Your task to perform on an android device: Show the shopping cart on amazon.com. Add "duracell triple a" to the cart on amazon.com, then select checkout. Image 0: 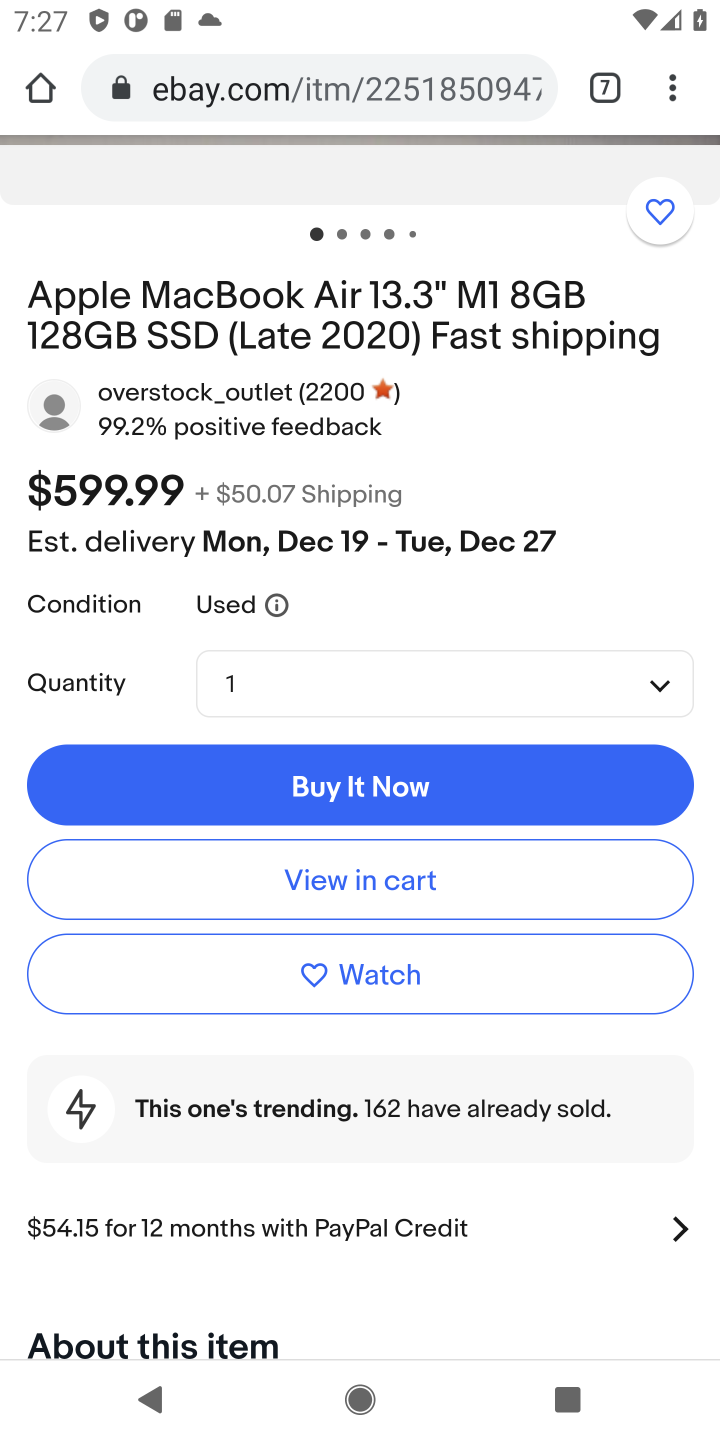
Step 0: press home button
Your task to perform on an android device: Show the shopping cart on amazon.com. Add "duracell triple a" to the cart on amazon.com, then select checkout. Image 1: 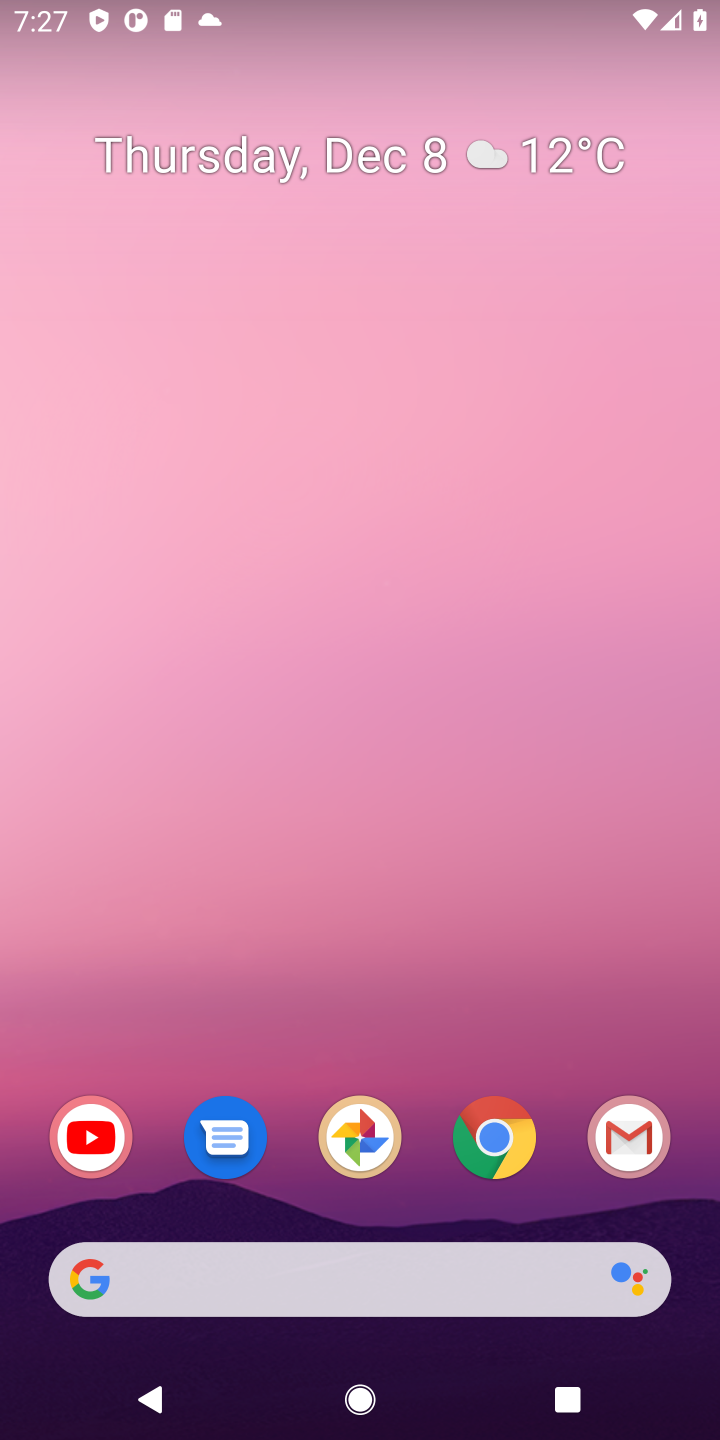
Step 1: click (487, 1129)
Your task to perform on an android device: Show the shopping cart on amazon.com. Add "duracell triple a" to the cart on amazon.com, then select checkout. Image 2: 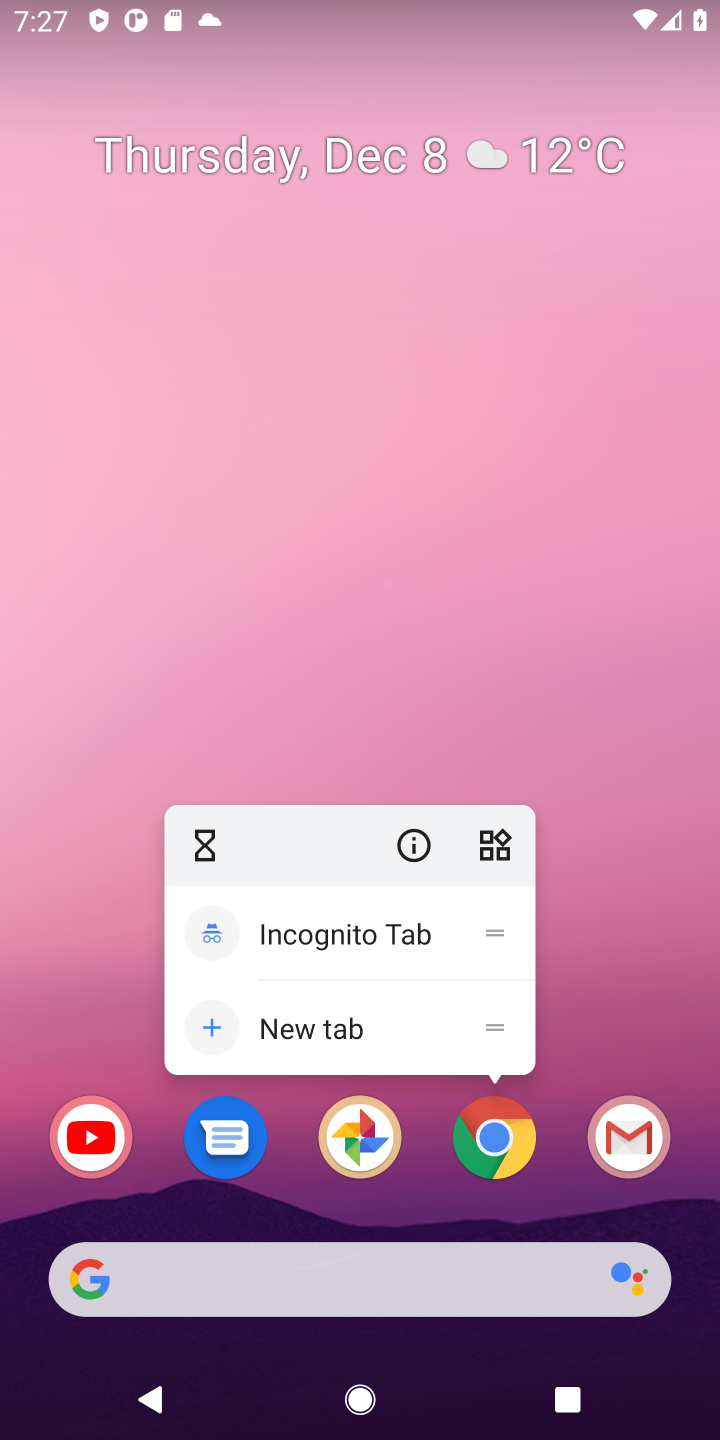
Step 2: click (475, 1124)
Your task to perform on an android device: Show the shopping cart on amazon.com. Add "duracell triple a" to the cart on amazon.com, then select checkout. Image 3: 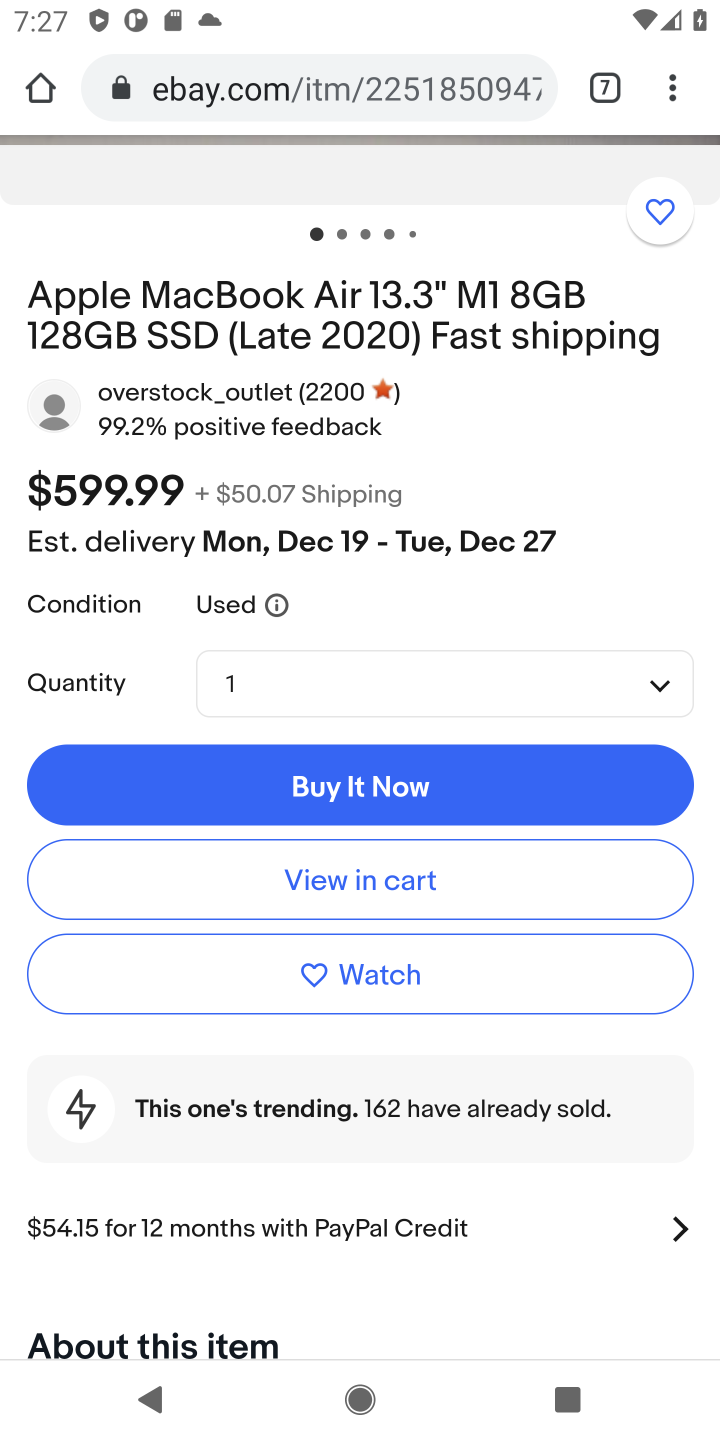
Step 3: click (609, 99)
Your task to perform on an android device: Show the shopping cart on amazon.com. Add "duracell triple a" to the cart on amazon.com, then select checkout. Image 4: 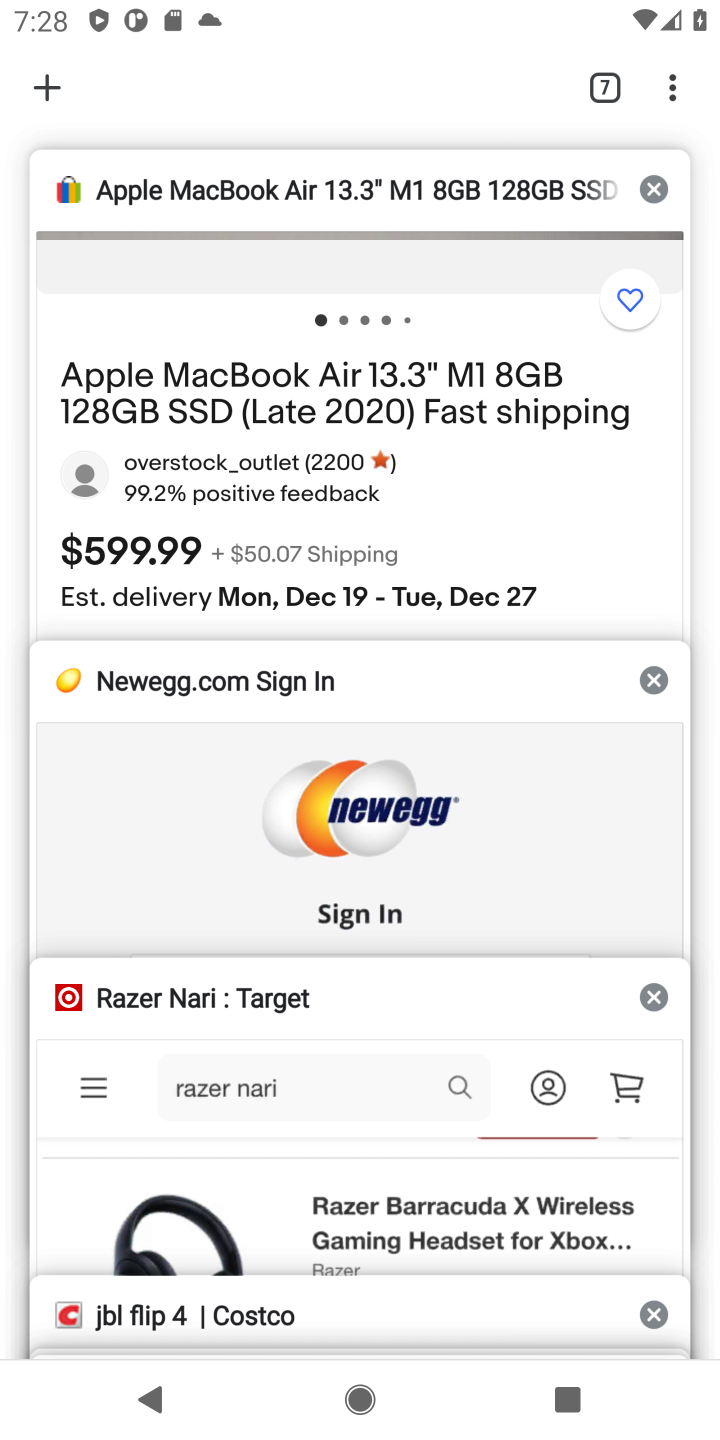
Step 4: drag from (327, 1305) to (423, 740)
Your task to perform on an android device: Show the shopping cart on amazon.com. Add "duracell triple a" to the cart on amazon.com, then select checkout. Image 5: 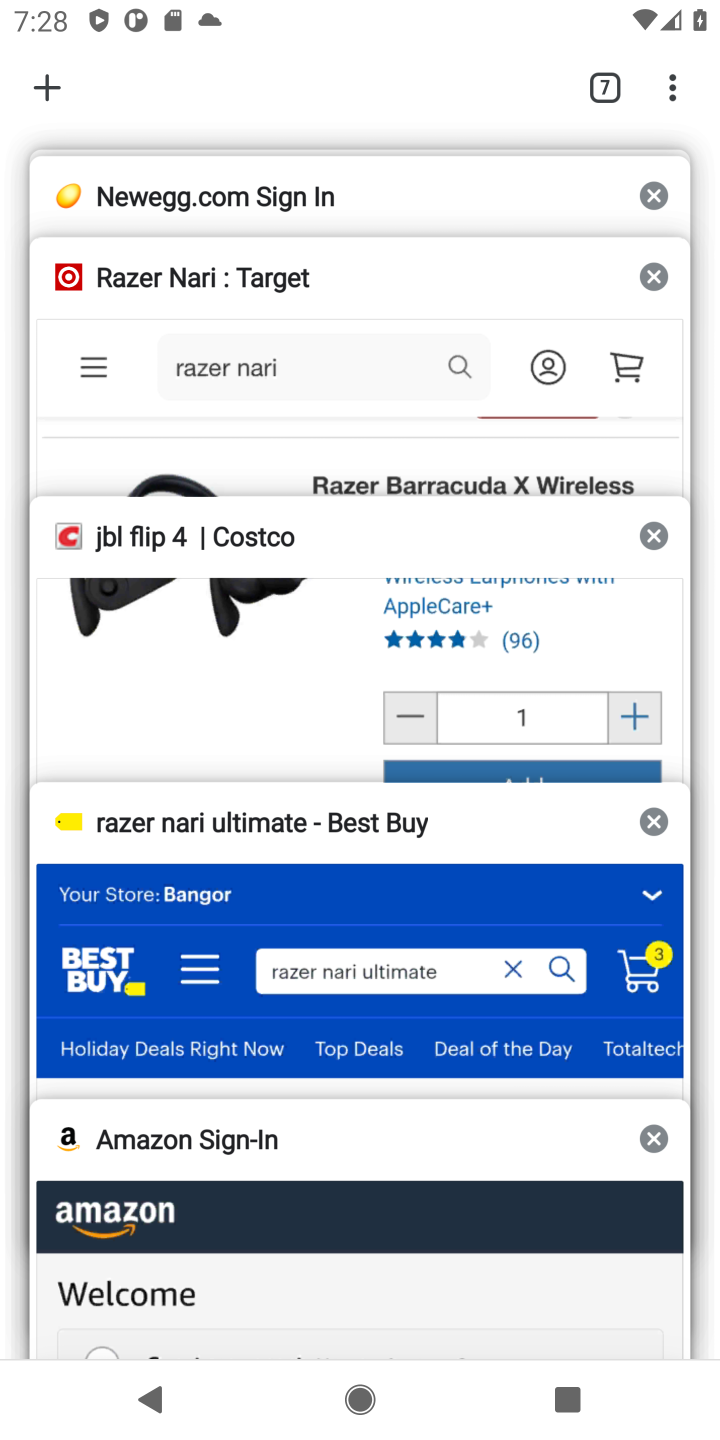
Step 5: click (268, 1243)
Your task to perform on an android device: Show the shopping cart on amazon.com. Add "duracell triple a" to the cart on amazon.com, then select checkout. Image 6: 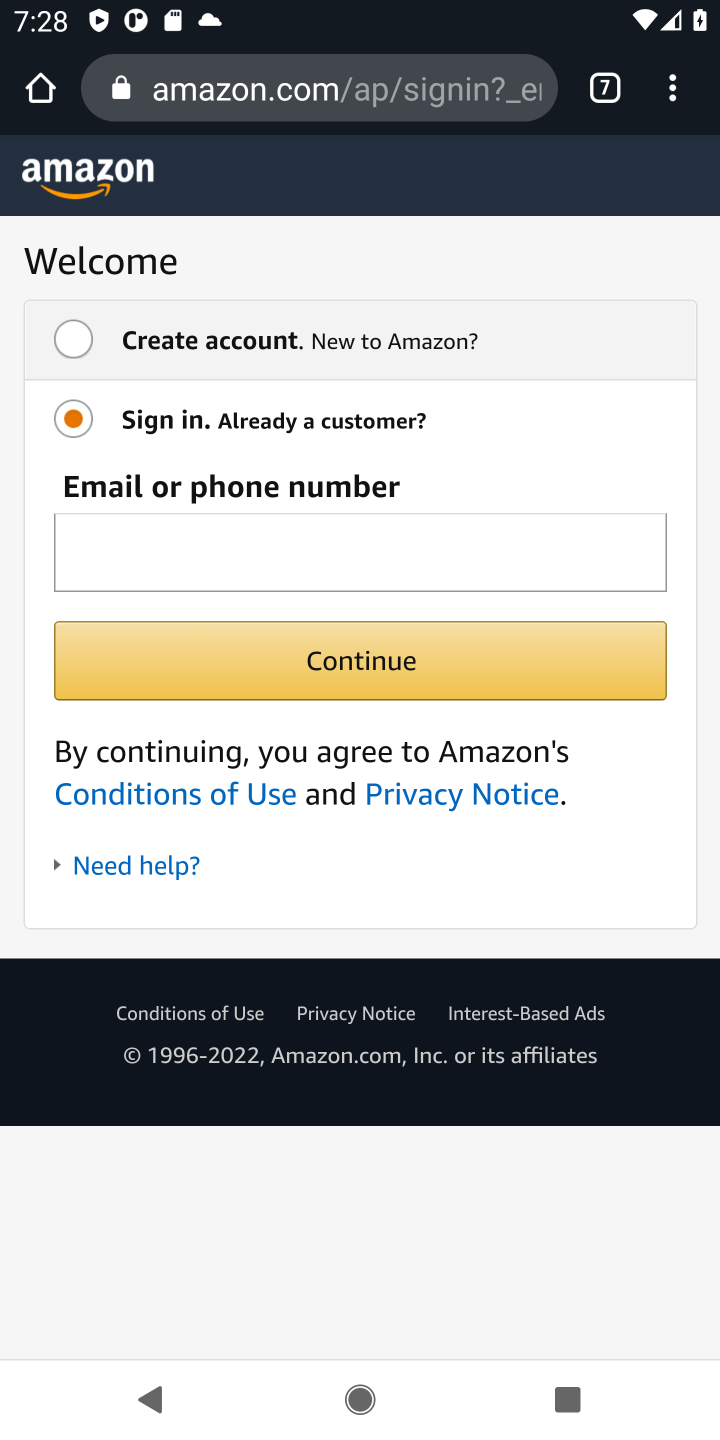
Step 6: press back button
Your task to perform on an android device: Show the shopping cart on amazon.com. Add "duracell triple a" to the cart on amazon.com, then select checkout. Image 7: 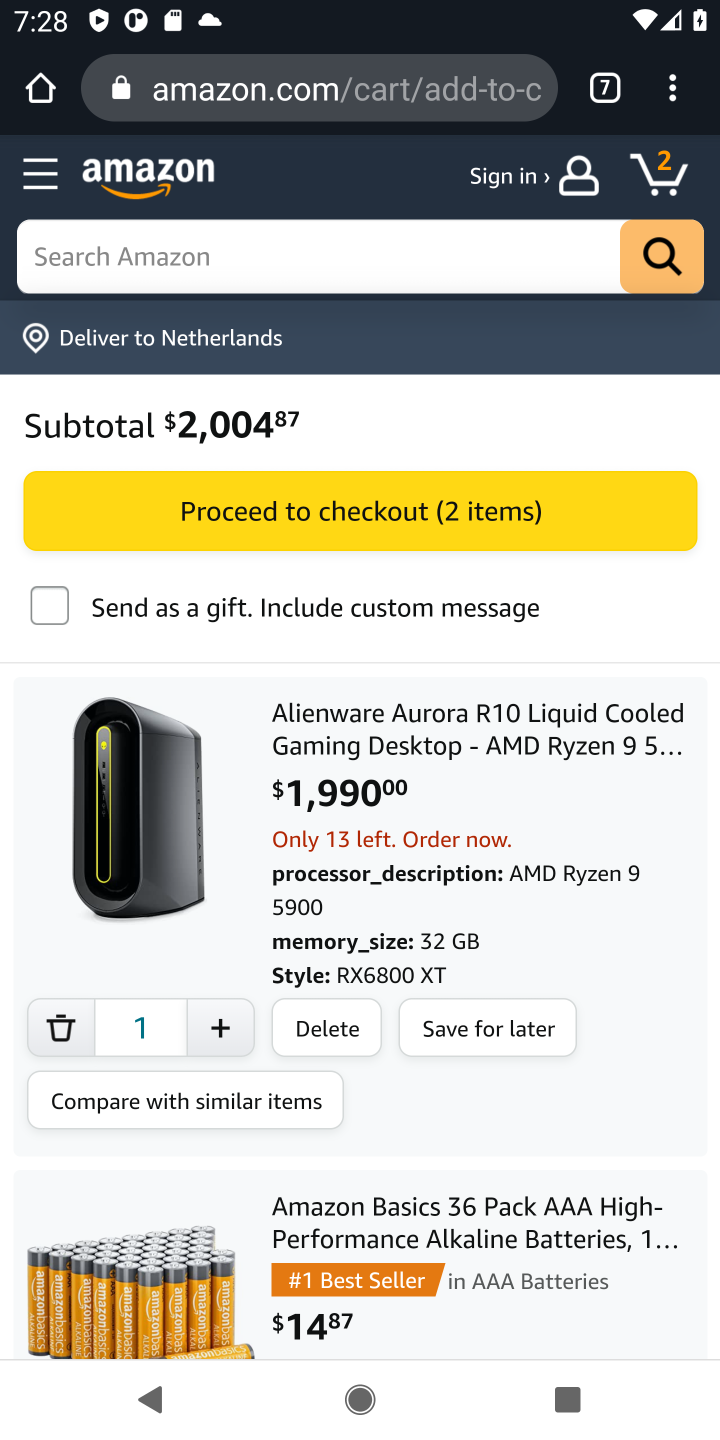
Step 7: click (270, 259)
Your task to perform on an android device: Show the shopping cart on amazon.com. Add "duracell triple a" to the cart on amazon.com, then select checkout. Image 8: 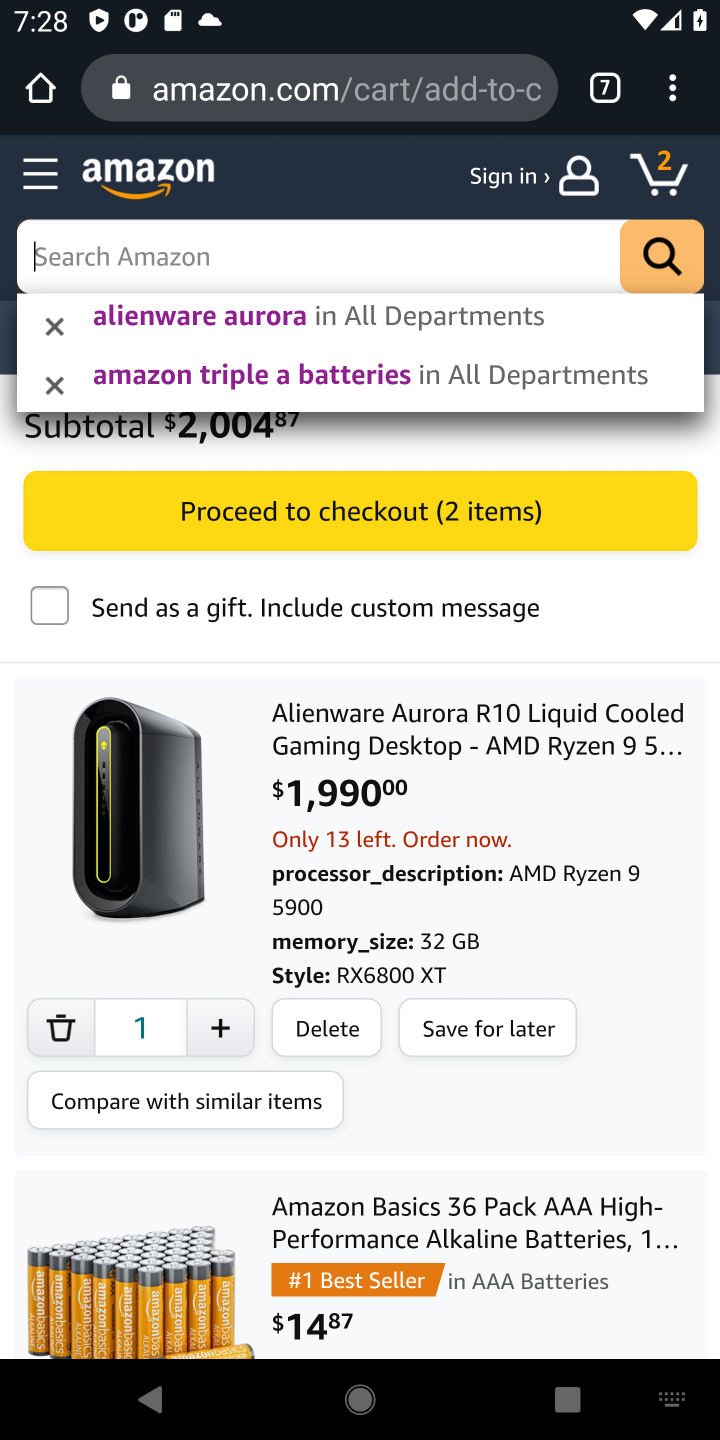
Step 8: type "duracell triple a"
Your task to perform on an android device: Show the shopping cart on amazon.com. Add "duracell triple a" to the cart on amazon.com, then select checkout. Image 9: 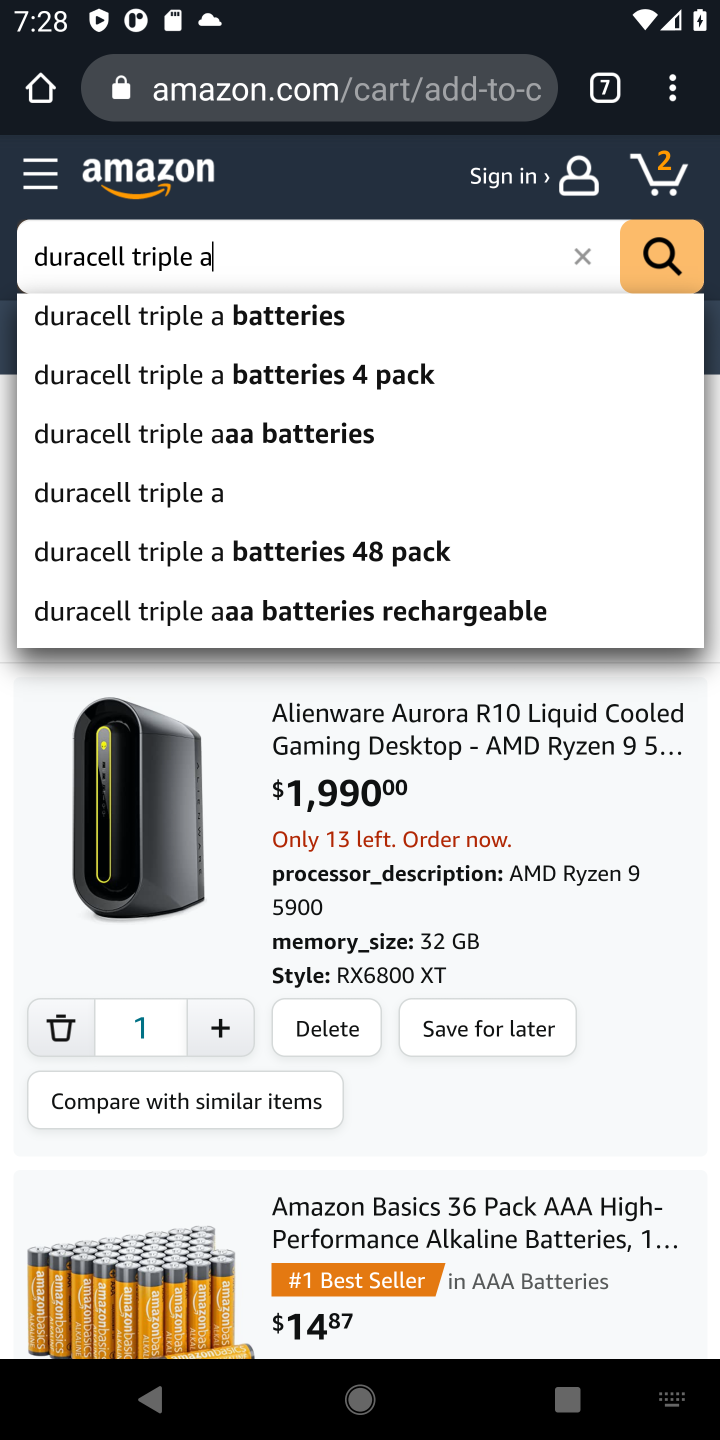
Step 9: click (136, 320)
Your task to perform on an android device: Show the shopping cart on amazon.com. Add "duracell triple a" to the cart on amazon.com, then select checkout. Image 10: 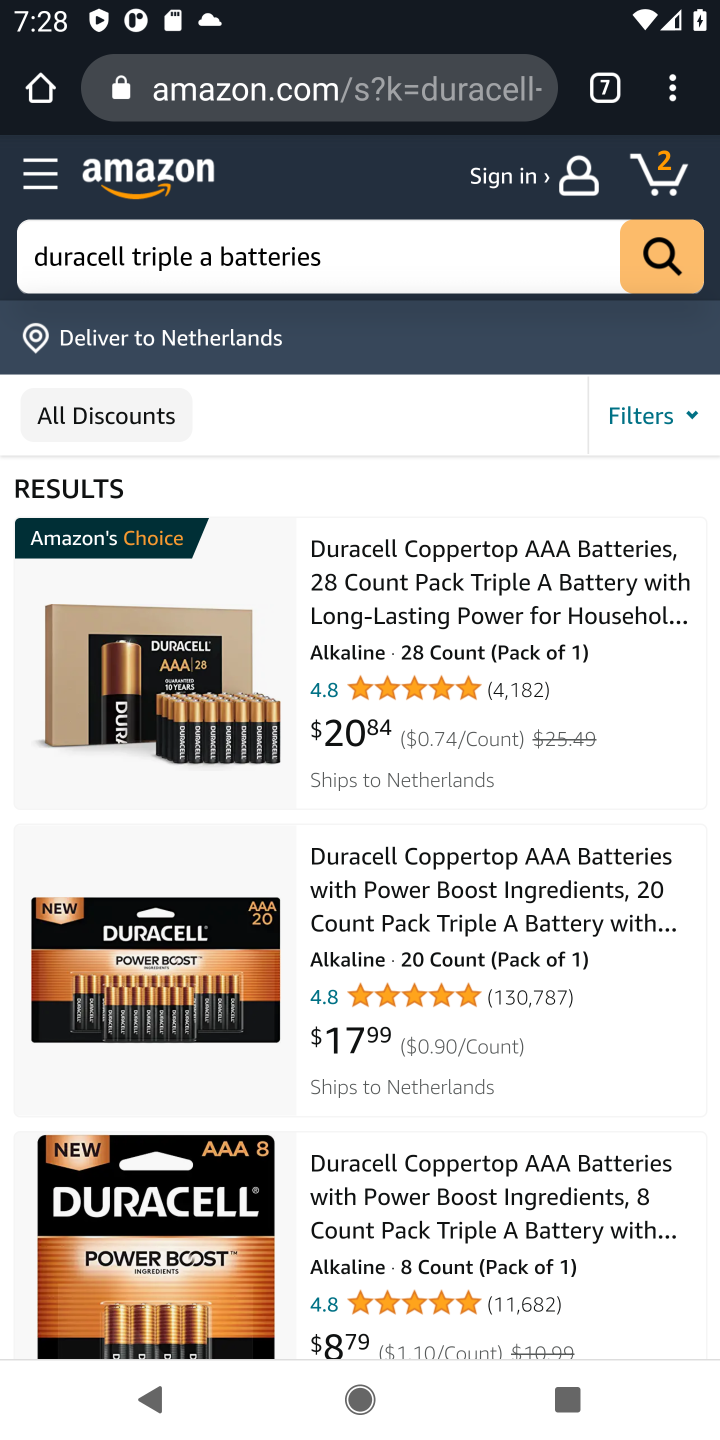
Step 10: click (421, 594)
Your task to perform on an android device: Show the shopping cart on amazon.com. Add "duracell triple a" to the cart on amazon.com, then select checkout. Image 11: 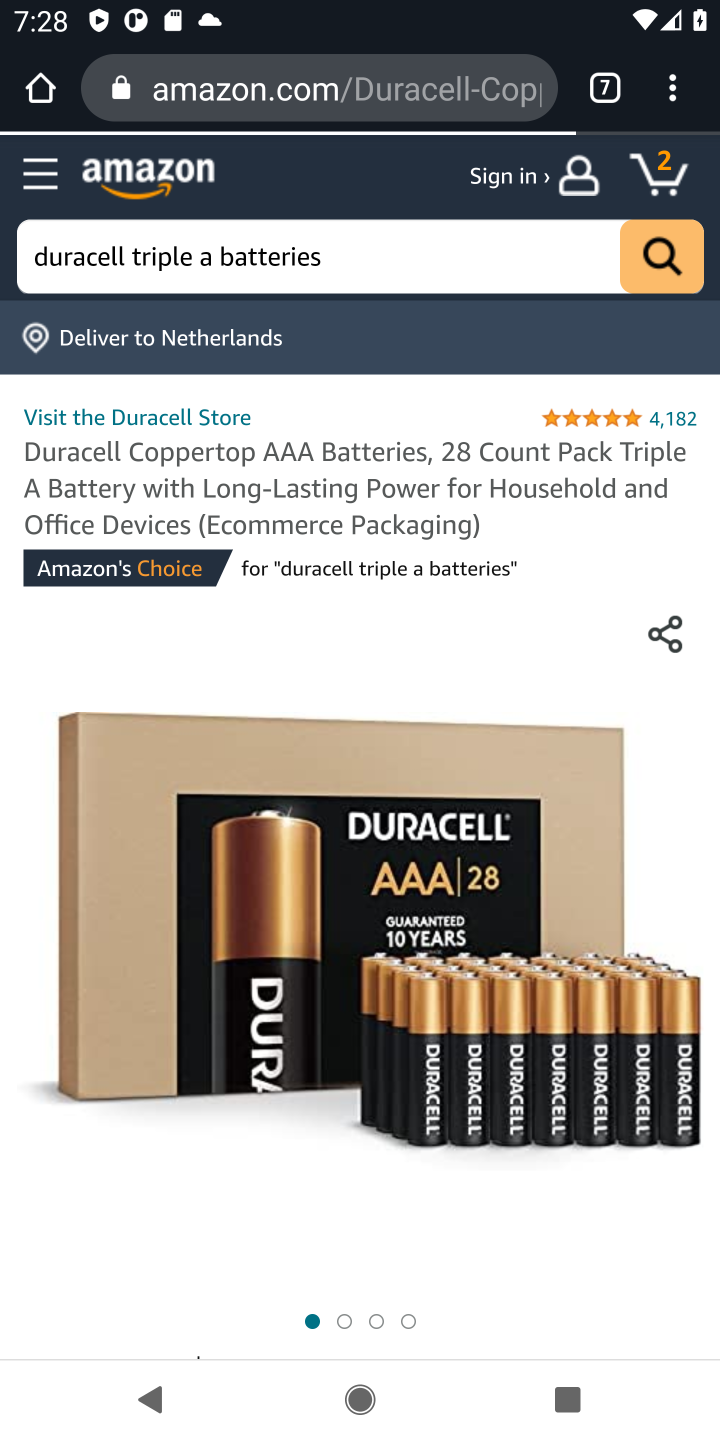
Step 11: drag from (305, 1193) to (429, 449)
Your task to perform on an android device: Show the shopping cart on amazon.com. Add "duracell triple a" to the cart on amazon.com, then select checkout. Image 12: 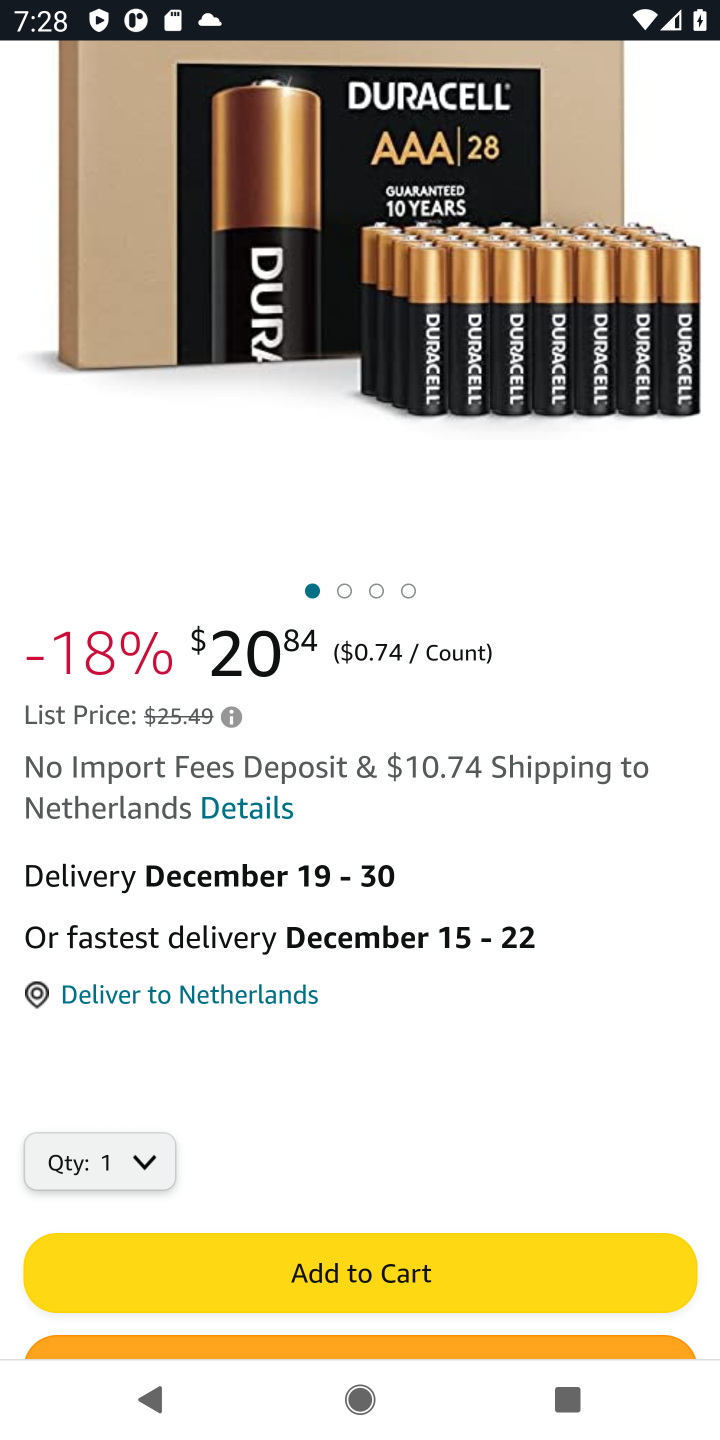
Step 12: drag from (410, 1156) to (480, 943)
Your task to perform on an android device: Show the shopping cart on amazon.com. Add "duracell triple a" to the cart on amazon.com, then select checkout. Image 13: 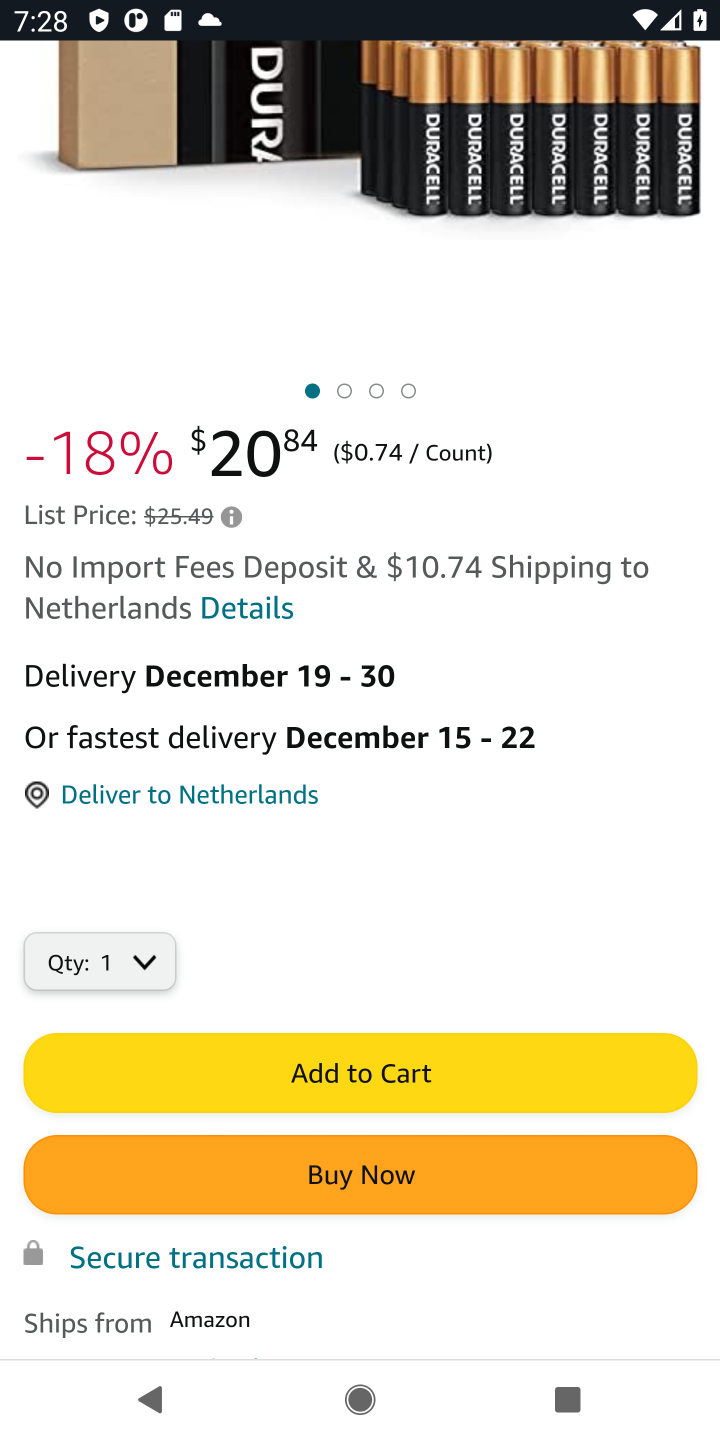
Step 13: click (421, 1075)
Your task to perform on an android device: Show the shopping cart on amazon.com. Add "duracell triple a" to the cart on amazon.com, then select checkout. Image 14: 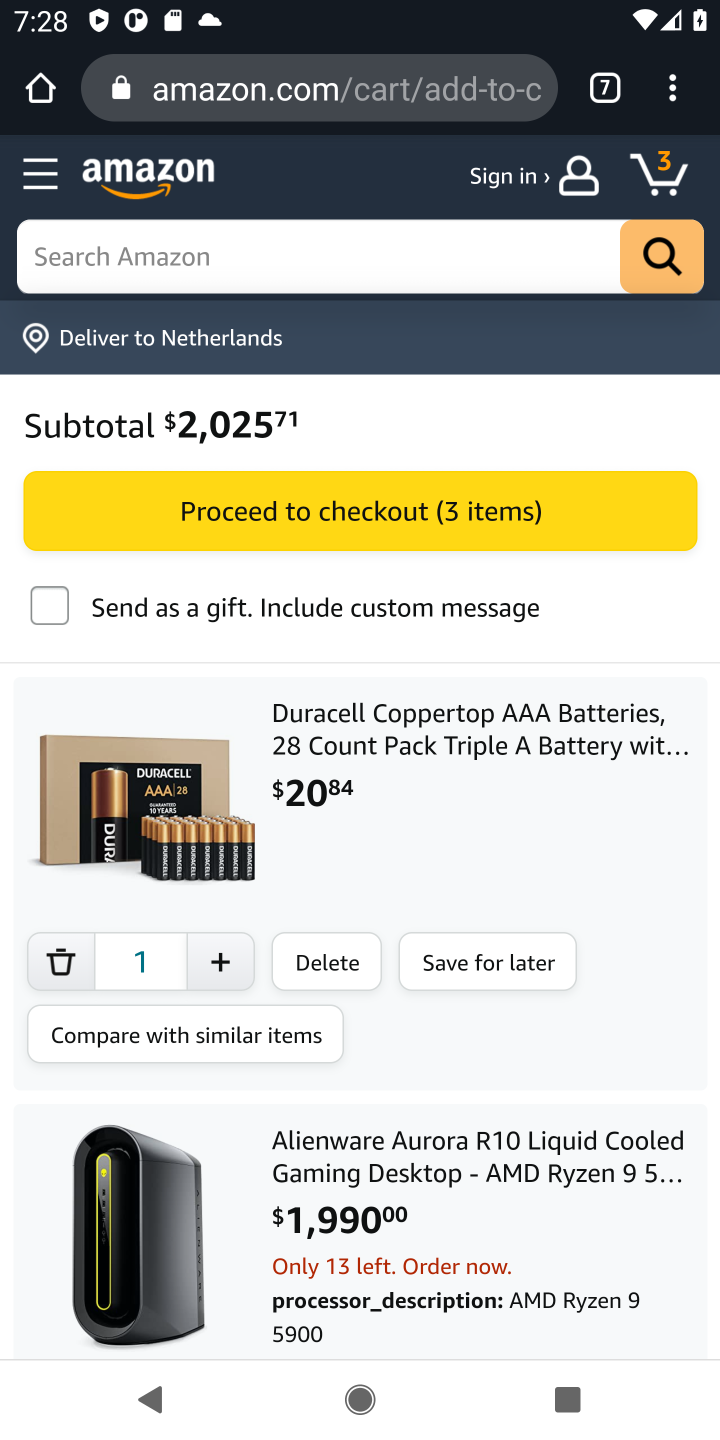
Step 14: task complete